Your task to perform on an android device: turn on the 24-hour format for clock Image 0: 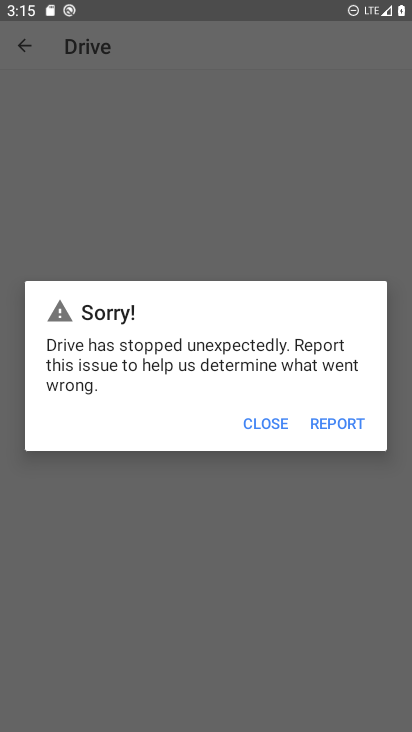
Step 0: press home button
Your task to perform on an android device: turn on the 24-hour format for clock Image 1: 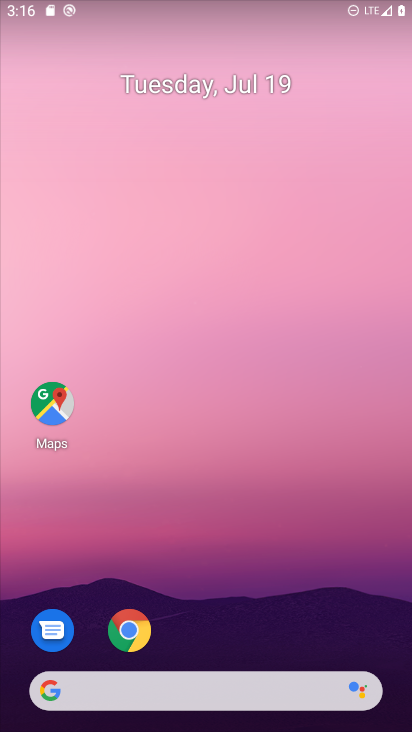
Step 1: drag from (388, 651) to (338, 124)
Your task to perform on an android device: turn on the 24-hour format for clock Image 2: 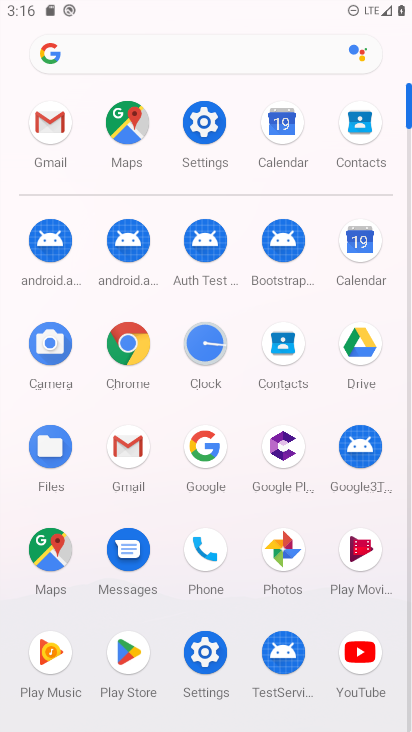
Step 2: click (206, 344)
Your task to perform on an android device: turn on the 24-hour format for clock Image 3: 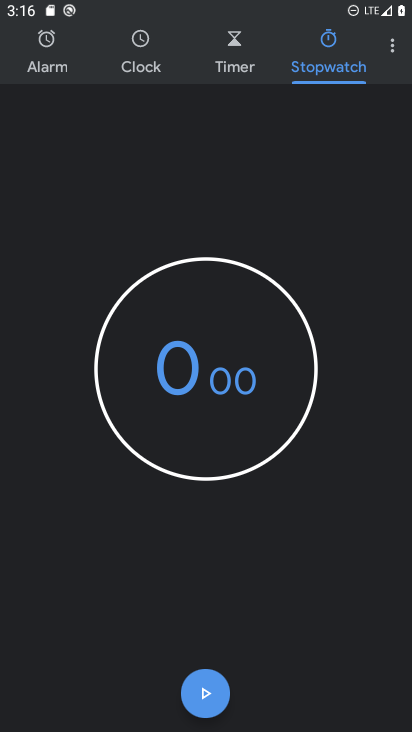
Step 3: click (392, 54)
Your task to perform on an android device: turn on the 24-hour format for clock Image 4: 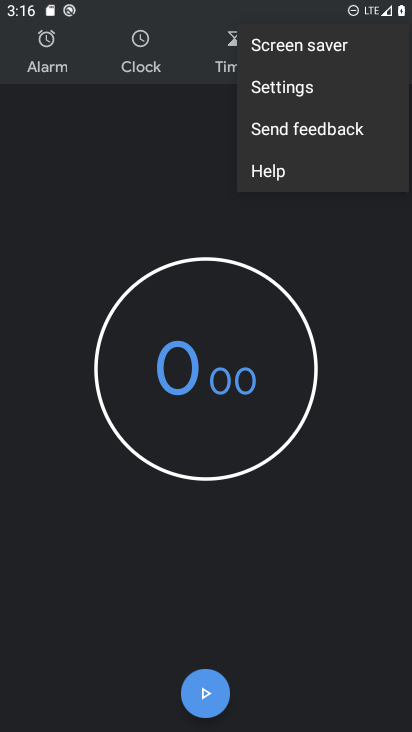
Step 4: click (279, 78)
Your task to perform on an android device: turn on the 24-hour format for clock Image 5: 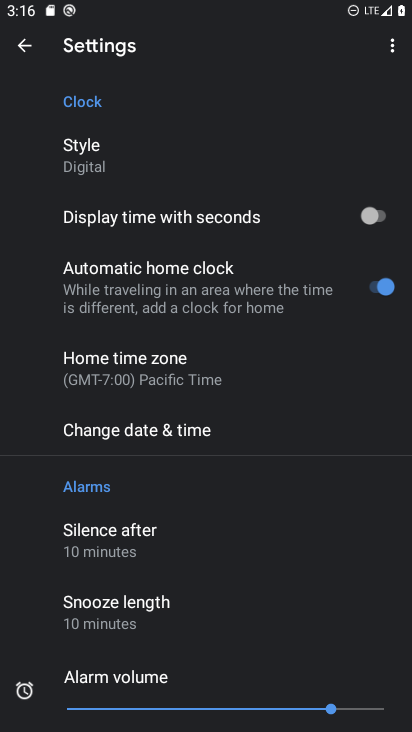
Step 5: click (145, 429)
Your task to perform on an android device: turn on the 24-hour format for clock Image 6: 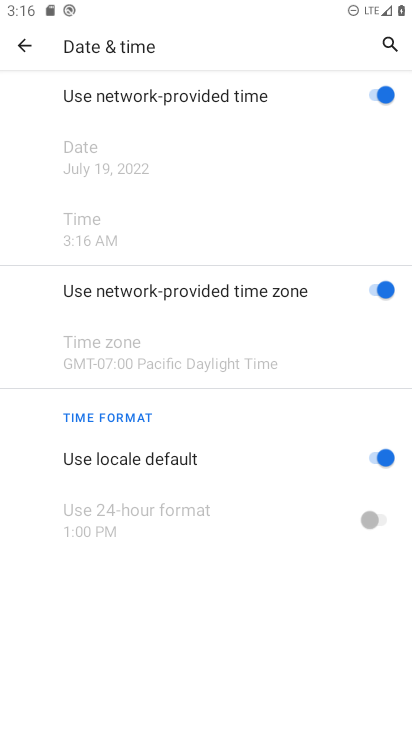
Step 6: click (373, 458)
Your task to perform on an android device: turn on the 24-hour format for clock Image 7: 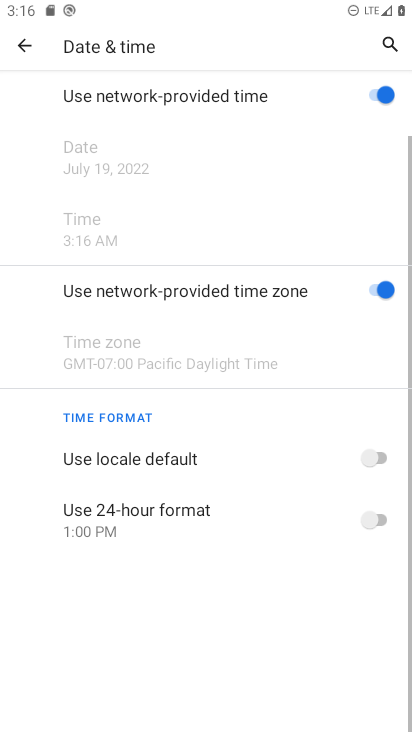
Step 7: click (383, 520)
Your task to perform on an android device: turn on the 24-hour format for clock Image 8: 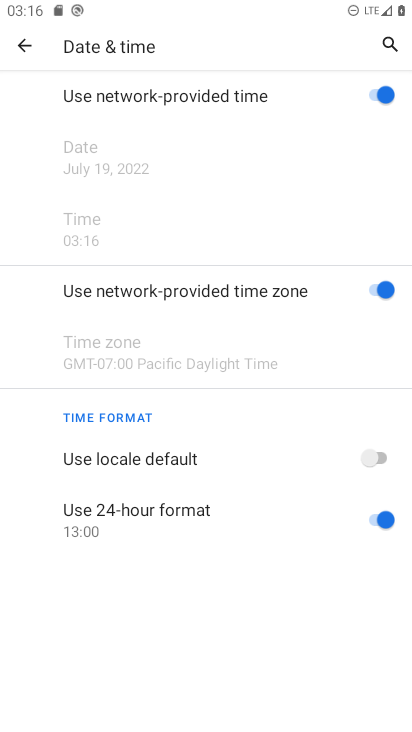
Step 8: task complete